Your task to perform on an android device: turn on the 12-hour format for clock Image 0: 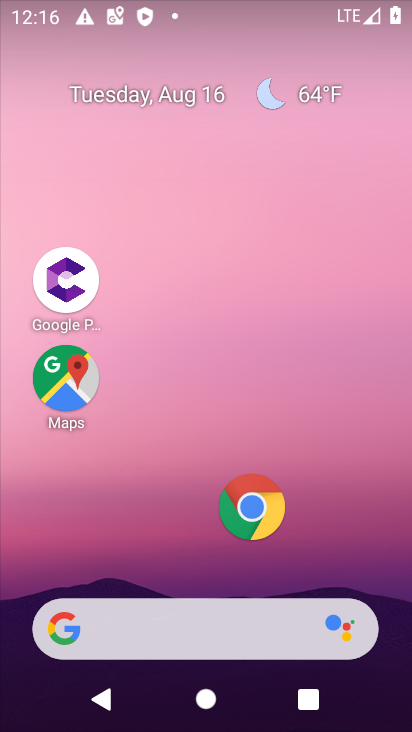
Step 0: drag from (185, 535) to (177, 18)
Your task to perform on an android device: turn on the 12-hour format for clock Image 1: 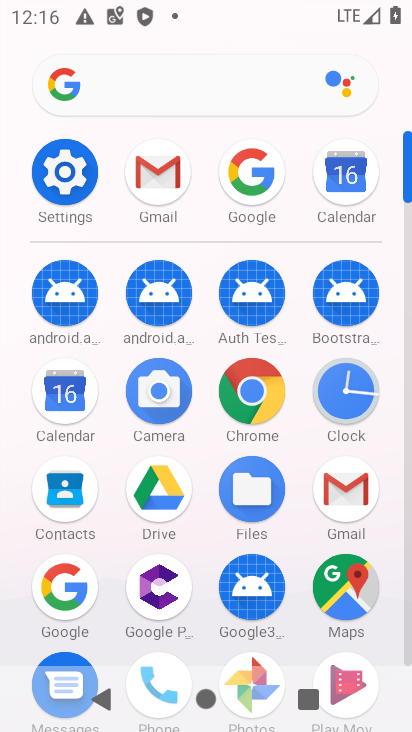
Step 1: click (339, 383)
Your task to perform on an android device: turn on the 12-hour format for clock Image 2: 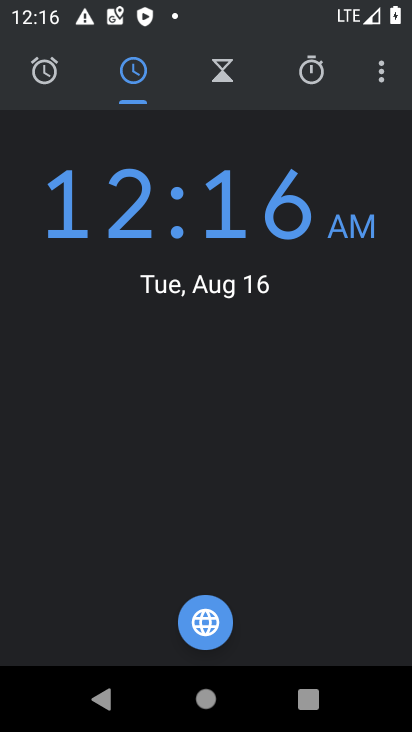
Step 2: click (378, 68)
Your task to perform on an android device: turn on the 12-hour format for clock Image 3: 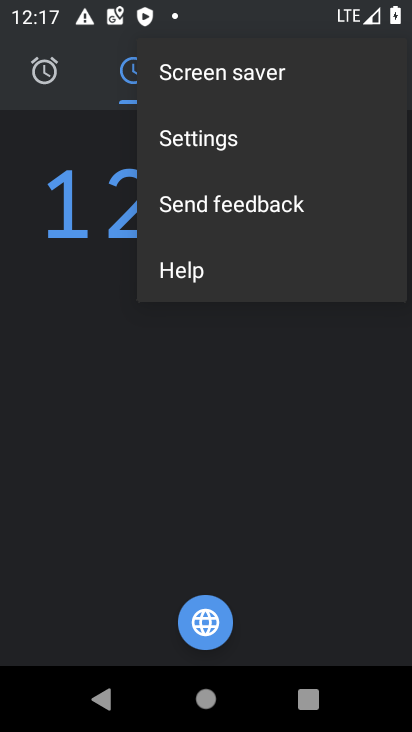
Step 3: click (206, 137)
Your task to perform on an android device: turn on the 12-hour format for clock Image 4: 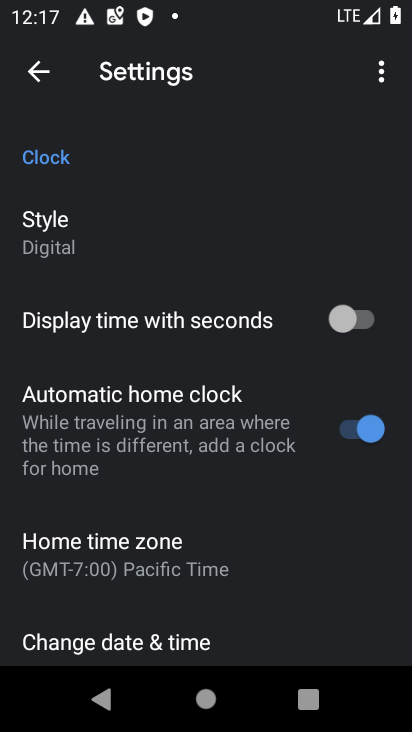
Step 4: drag from (212, 492) to (173, 217)
Your task to perform on an android device: turn on the 12-hour format for clock Image 5: 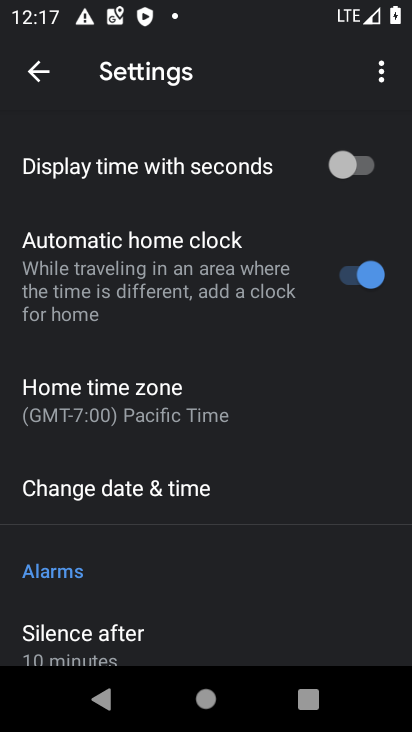
Step 5: click (154, 482)
Your task to perform on an android device: turn on the 12-hour format for clock Image 6: 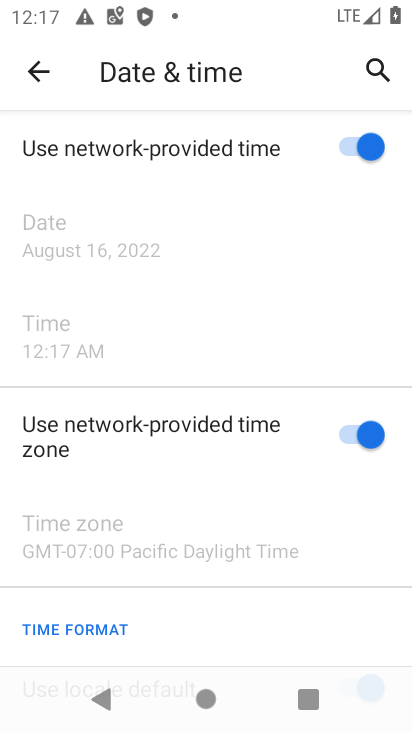
Step 6: task complete